Your task to perform on an android device: Go to wifi settings Image 0: 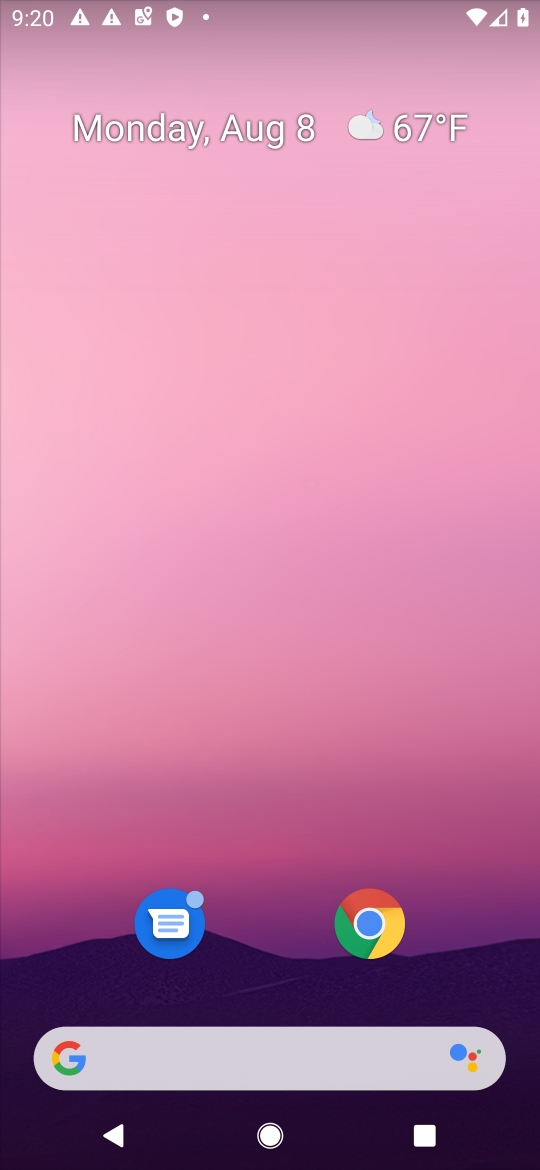
Step 0: drag from (57, 1151) to (358, 561)
Your task to perform on an android device: Go to wifi settings Image 1: 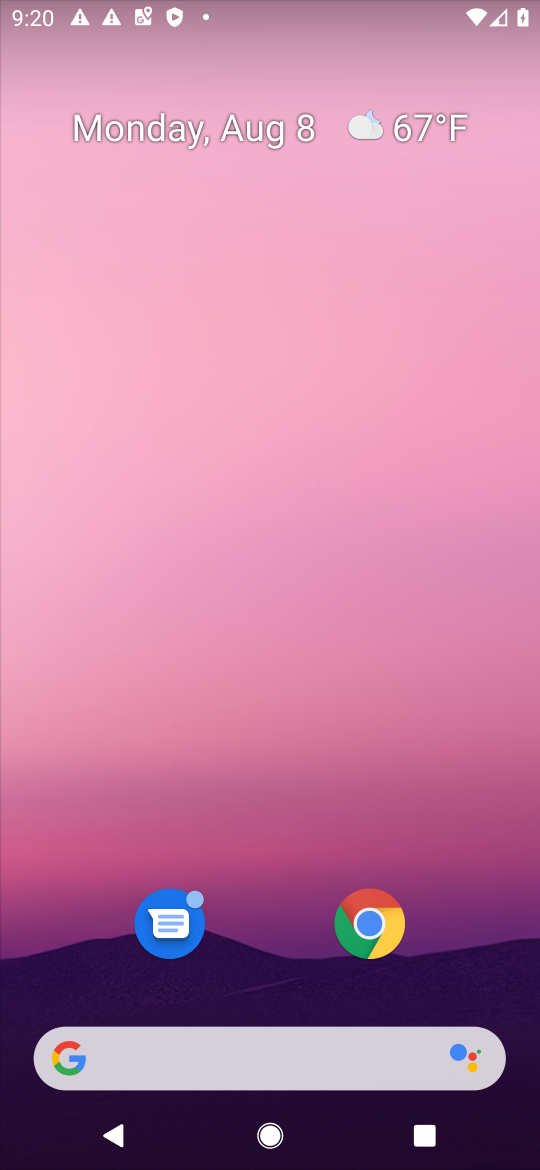
Step 1: drag from (38, 1115) to (406, 235)
Your task to perform on an android device: Go to wifi settings Image 2: 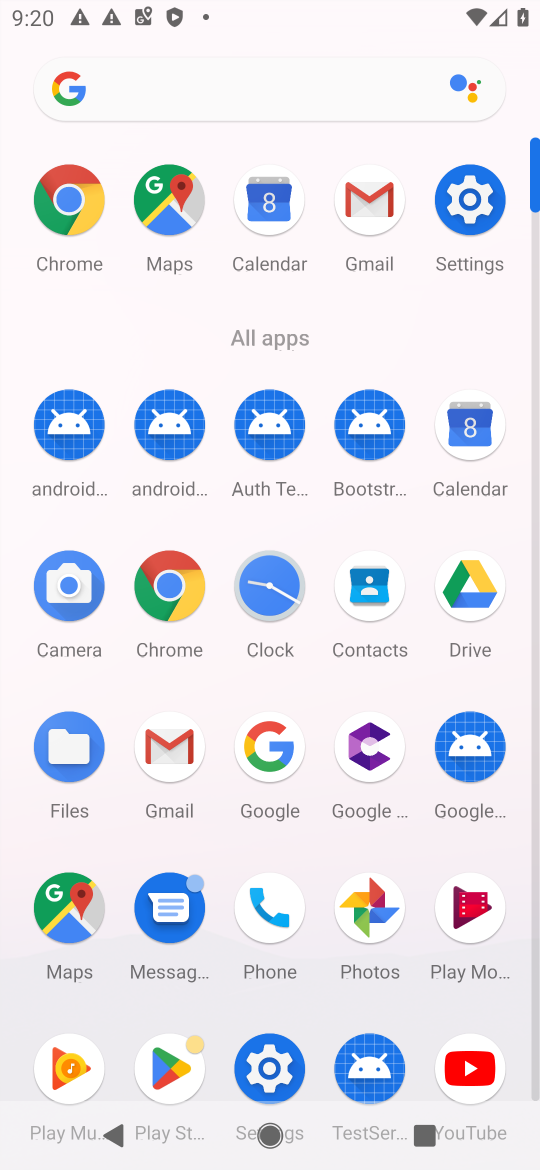
Step 2: click (267, 1048)
Your task to perform on an android device: Go to wifi settings Image 3: 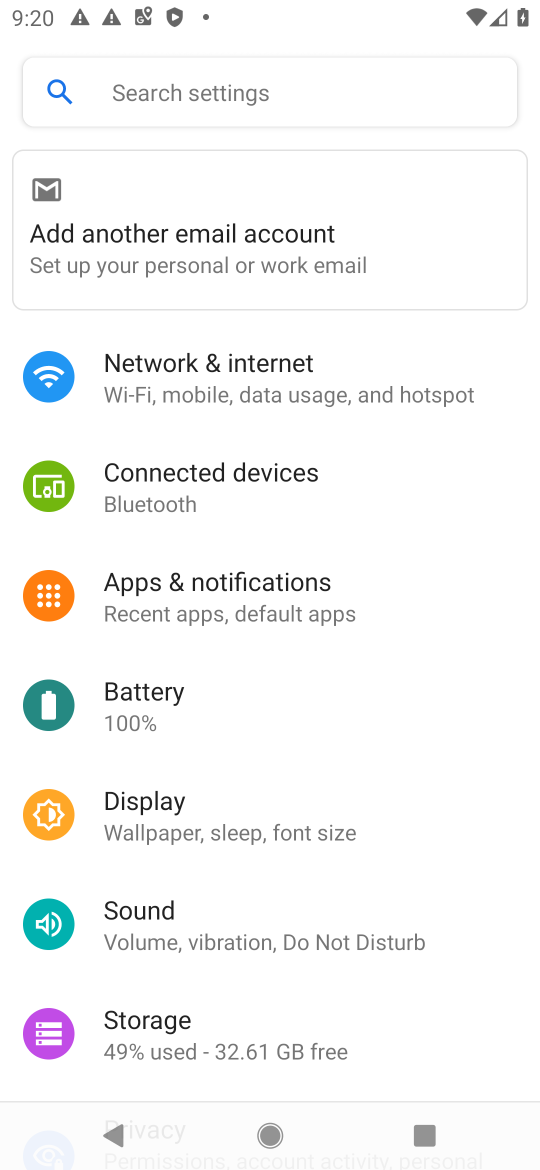
Step 3: click (245, 371)
Your task to perform on an android device: Go to wifi settings Image 4: 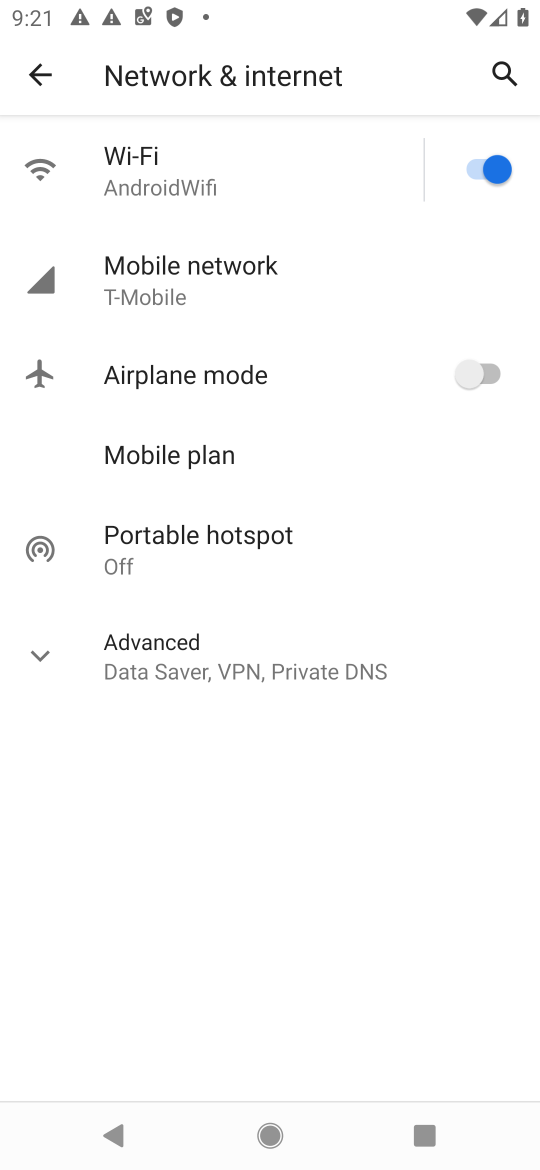
Step 4: task complete